Your task to perform on an android device: Open battery settings Image 0: 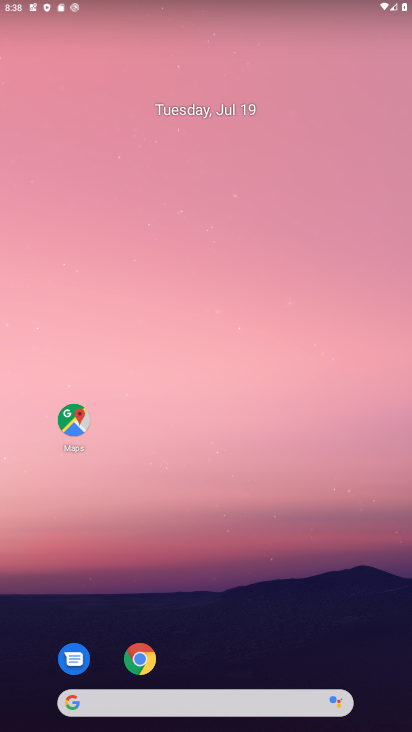
Step 0: drag from (221, 690) to (276, 225)
Your task to perform on an android device: Open battery settings Image 1: 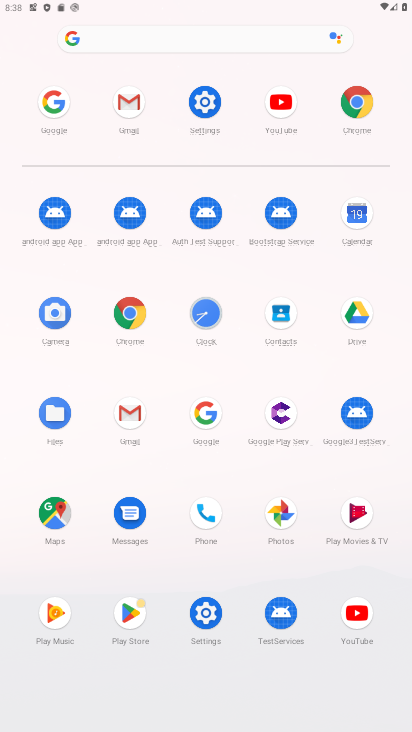
Step 1: click (197, 111)
Your task to perform on an android device: Open battery settings Image 2: 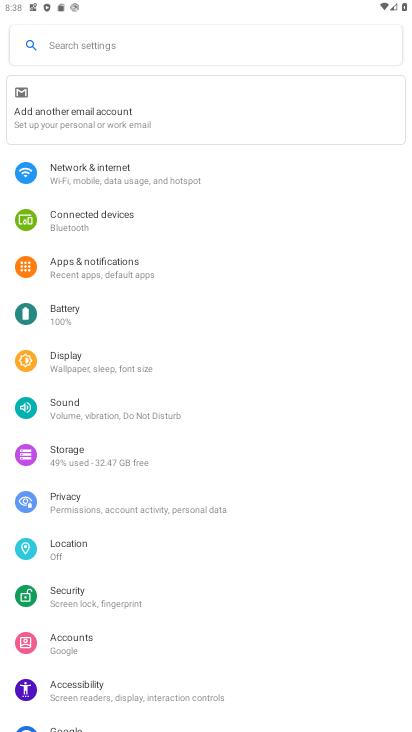
Step 2: drag from (131, 659) to (184, 299)
Your task to perform on an android device: Open battery settings Image 3: 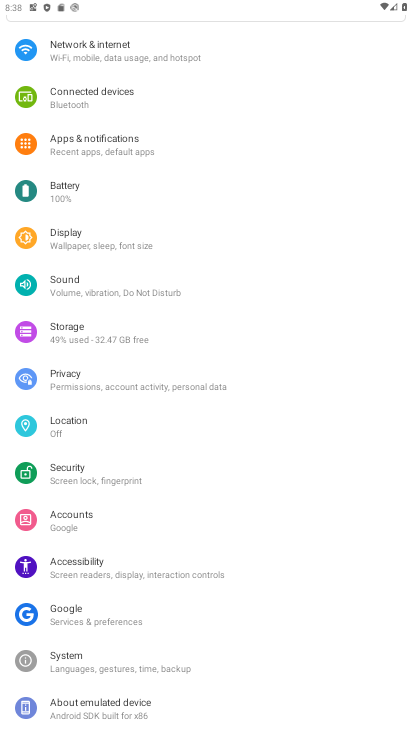
Step 3: drag from (155, 242) to (195, 378)
Your task to perform on an android device: Open battery settings Image 4: 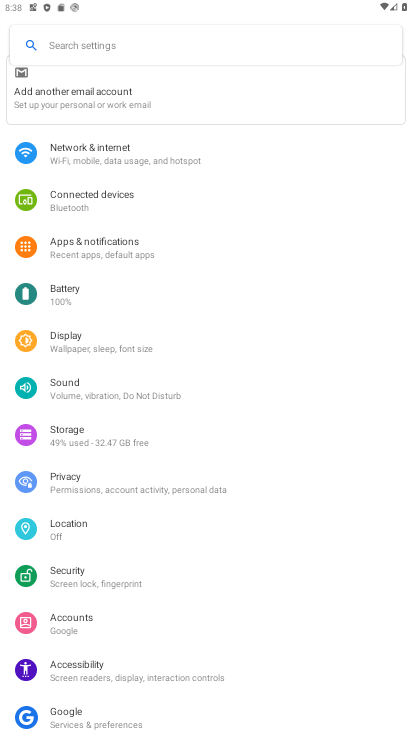
Step 4: click (104, 150)
Your task to perform on an android device: Open battery settings Image 5: 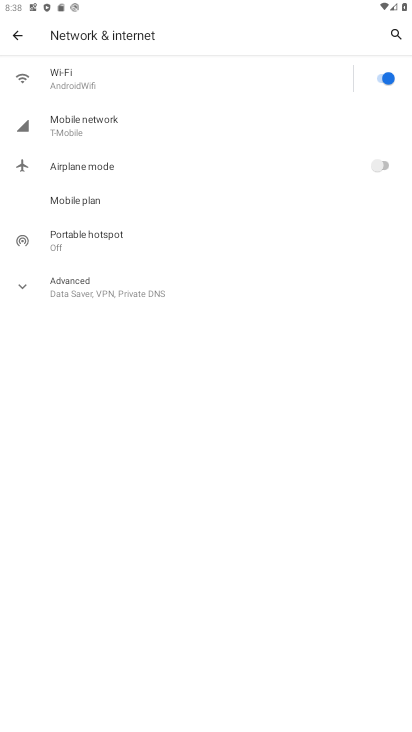
Step 5: click (347, 83)
Your task to perform on an android device: Open battery settings Image 6: 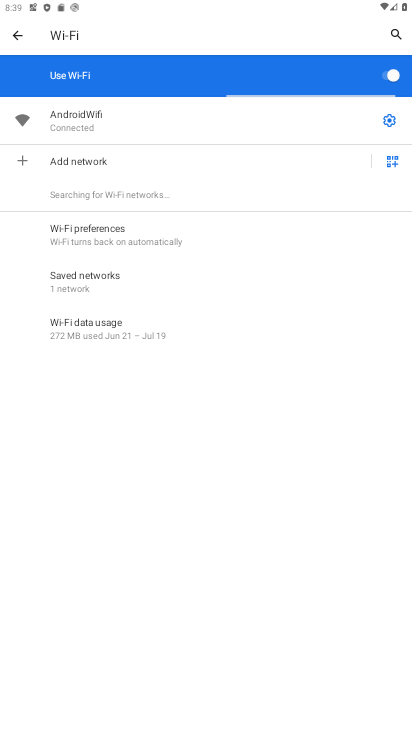
Step 6: click (395, 122)
Your task to perform on an android device: Open battery settings Image 7: 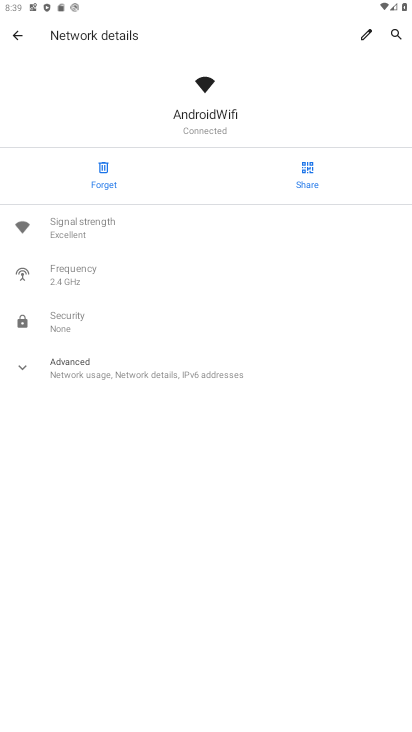
Step 7: click (68, 368)
Your task to perform on an android device: Open battery settings Image 8: 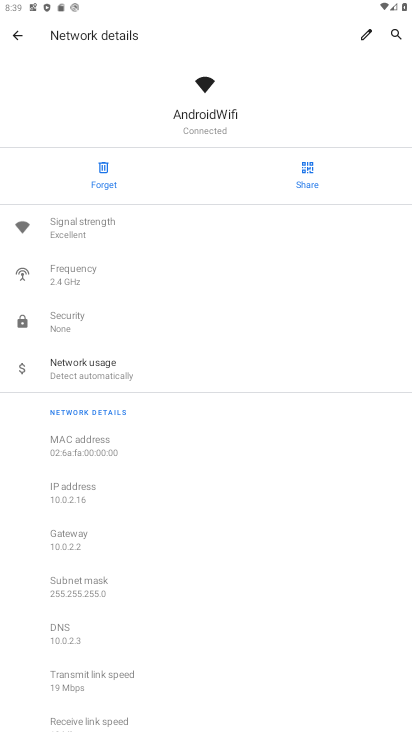
Step 8: drag from (157, 576) to (214, 248)
Your task to perform on an android device: Open battery settings Image 9: 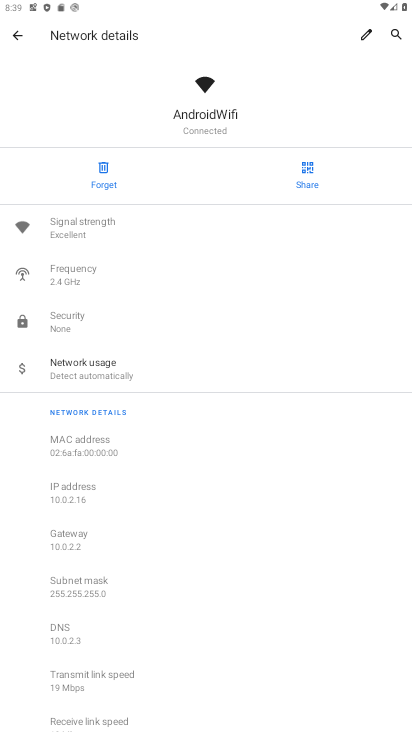
Step 9: click (23, 33)
Your task to perform on an android device: Open battery settings Image 10: 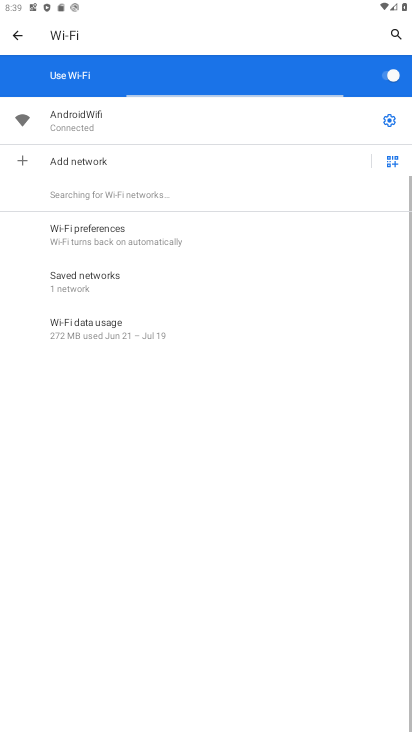
Step 10: press home button
Your task to perform on an android device: Open battery settings Image 11: 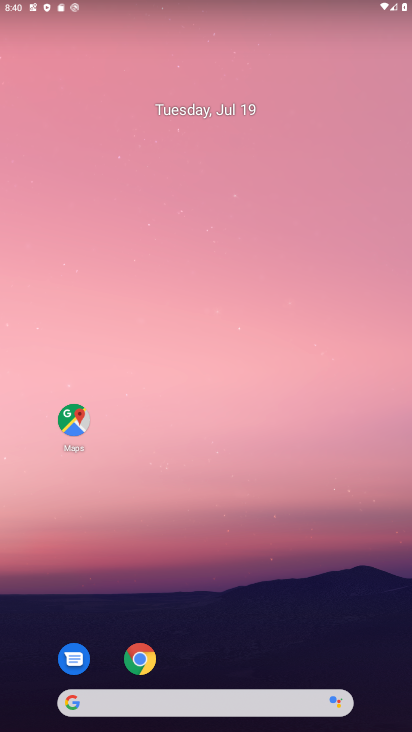
Step 11: drag from (141, 663) to (173, 288)
Your task to perform on an android device: Open battery settings Image 12: 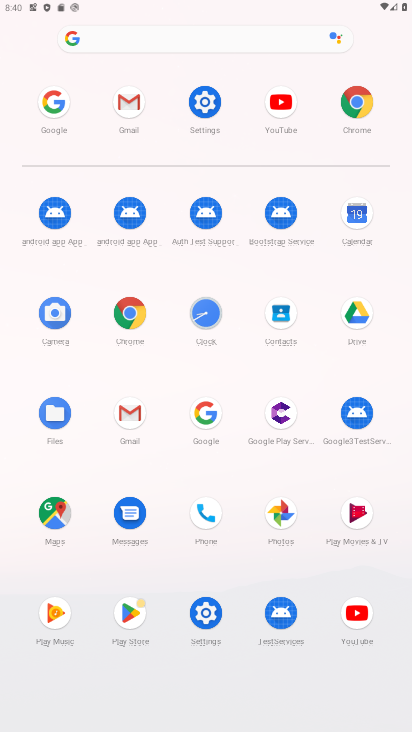
Step 12: click (210, 106)
Your task to perform on an android device: Open battery settings Image 13: 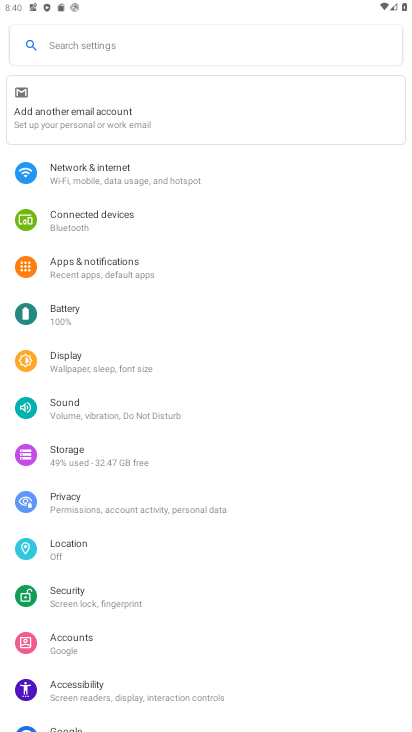
Step 13: click (69, 326)
Your task to perform on an android device: Open battery settings Image 14: 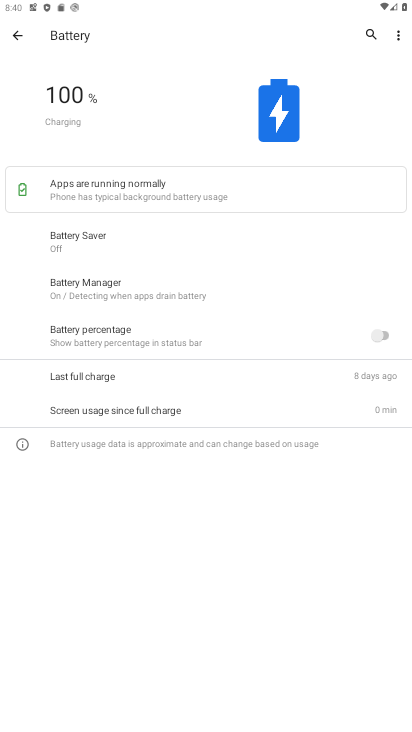
Step 14: task complete